Your task to perform on an android device: check android version Image 0: 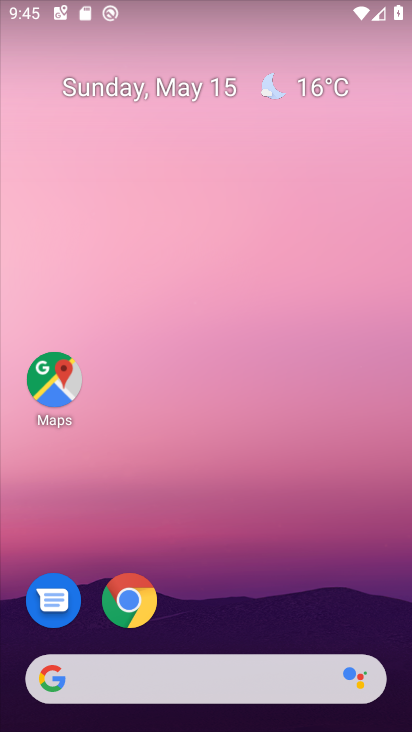
Step 0: drag from (228, 646) to (93, 74)
Your task to perform on an android device: check android version Image 1: 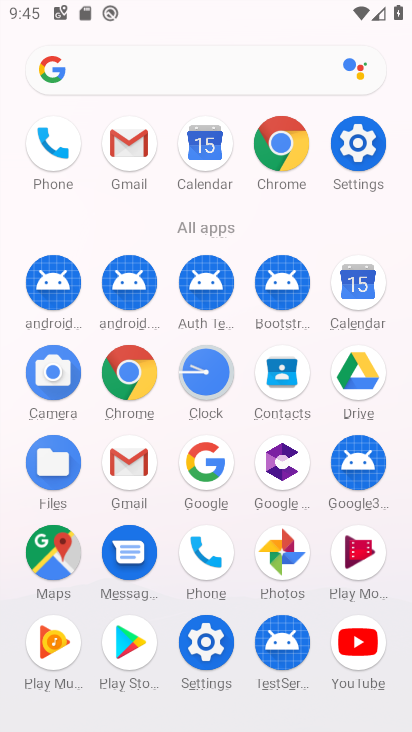
Step 1: click (217, 643)
Your task to perform on an android device: check android version Image 2: 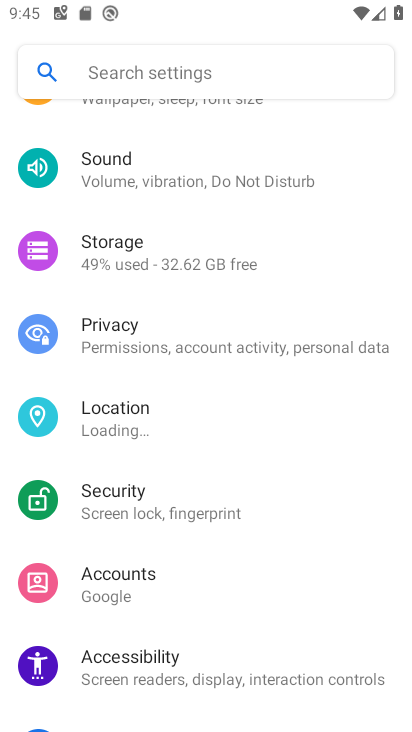
Step 2: drag from (246, 560) to (190, 49)
Your task to perform on an android device: check android version Image 3: 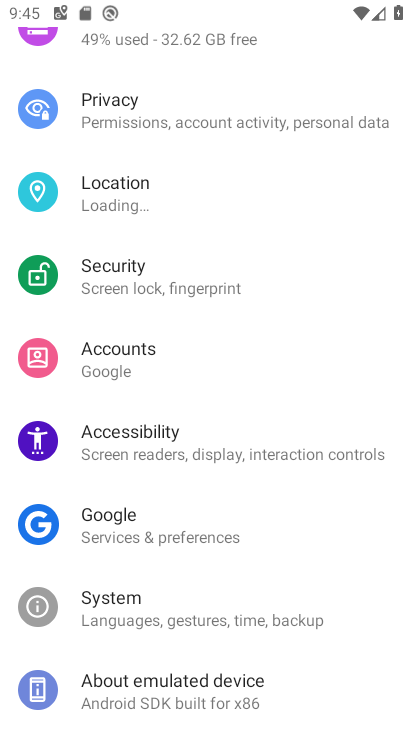
Step 3: click (217, 703)
Your task to perform on an android device: check android version Image 4: 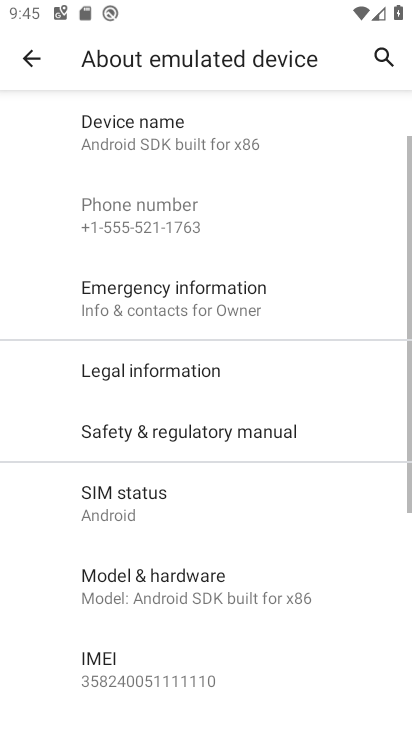
Step 4: drag from (220, 629) to (205, 97)
Your task to perform on an android device: check android version Image 5: 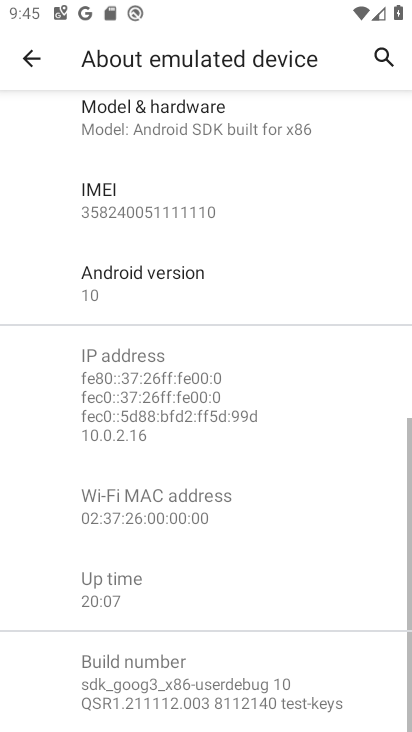
Step 5: click (156, 285)
Your task to perform on an android device: check android version Image 6: 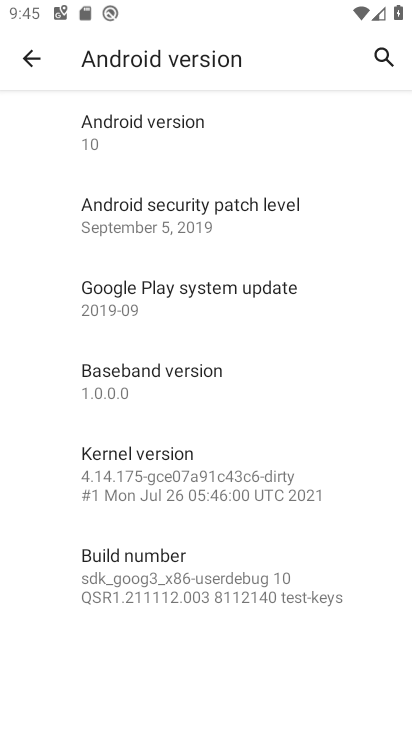
Step 6: click (107, 141)
Your task to perform on an android device: check android version Image 7: 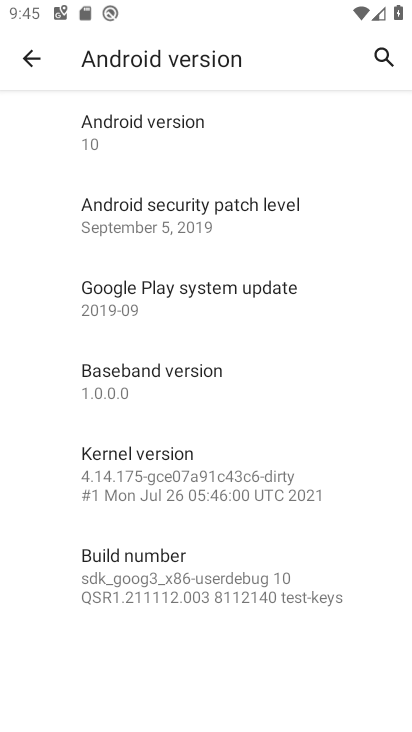
Step 7: task complete